Your task to perform on an android device: Search for Mexican restaurants on Maps Image 0: 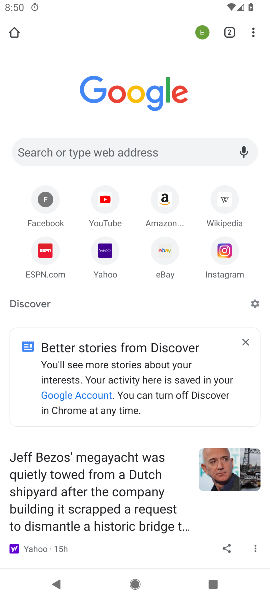
Step 0: press home button
Your task to perform on an android device: Search for Mexican restaurants on Maps Image 1: 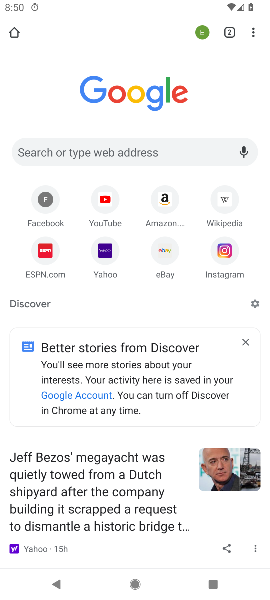
Step 1: press home button
Your task to perform on an android device: Search for Mexican restaurants on Maps Image 2: 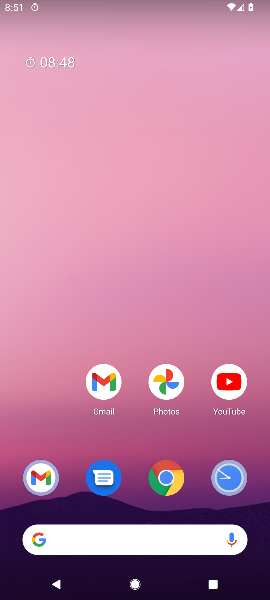
Step 2: drag from (195, 439) to (205, 204)
Your task to perform on an android device: Search for Mexican restaurants on Maps Image 3: 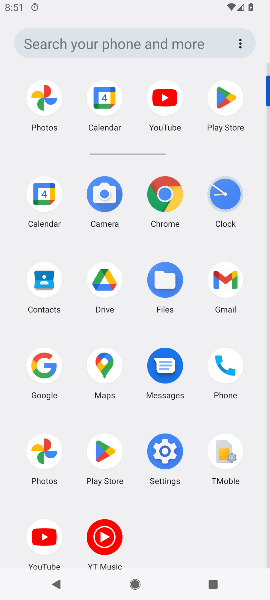
Step 3: click (97, 364)
Your task to perform on an android device: Search for Mexican restaurants on Maps Image 4: 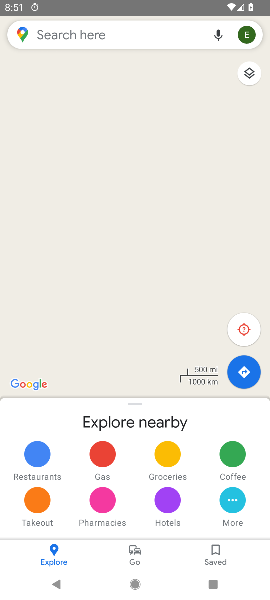
Step 4: click (154, 37)
Your task to perform on an android device: Search for Mexican restaurants on Maps Image 5: 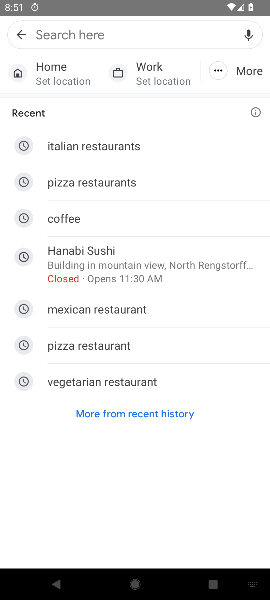
Step 5: type " Mexican restaurants"
Your task to perform on an android device: Search for Mexican restaurants on Maps Image 6: 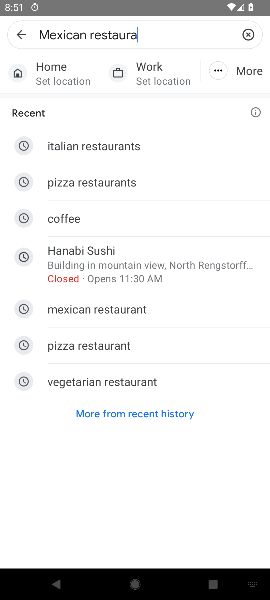
Step 6: type ""
Your task to perform on an android device: Search for Mexican restaurants on Maps Image 7: 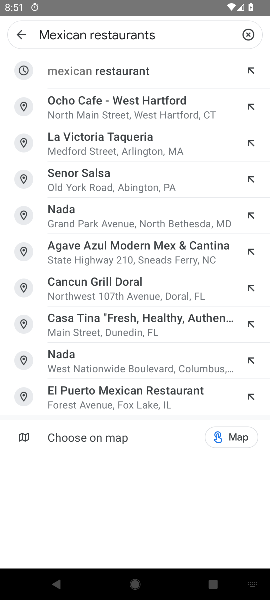
Step 7: click (53, 66)
Your task to perform on an android device: Search for Mexican restaurants on Maps Image 8: 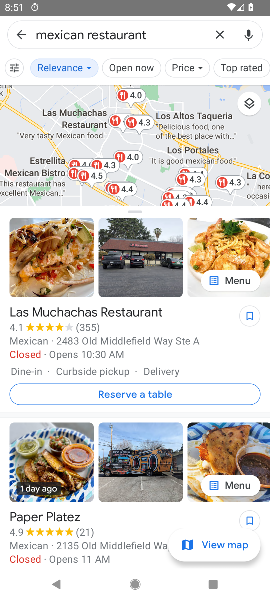
Step 8: task complete